Your task to perform on an android device: empty trash in the gmail app Image 0: 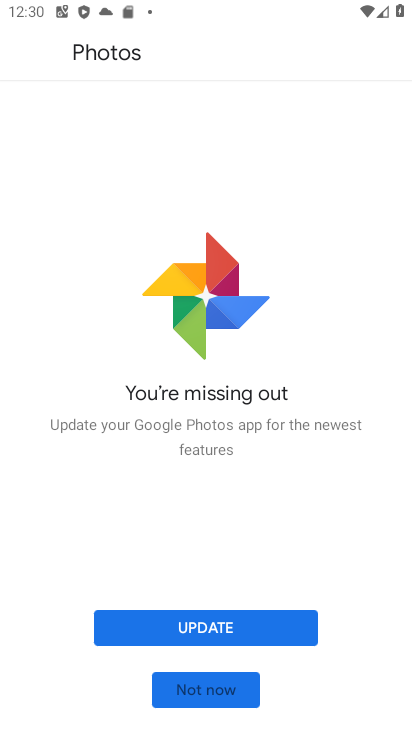
Step 0: task complete